Your task to perform on an android device: turn off improve location accuracy Image 0: 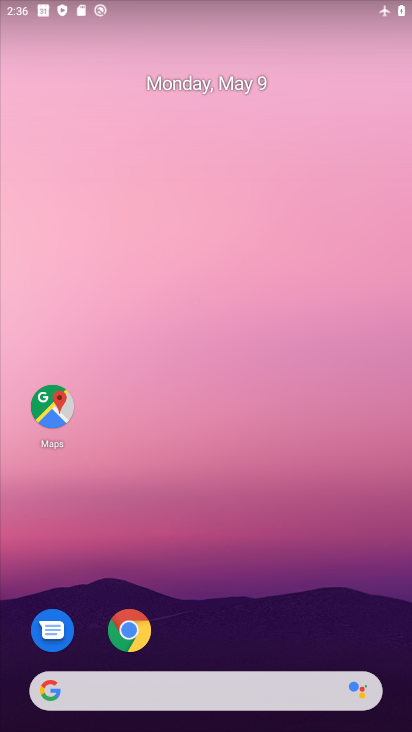
Step 0: drag from (346, 620) to (243, 199)
Your task to perform on an android device: turn off improve location accuracy Image 1: 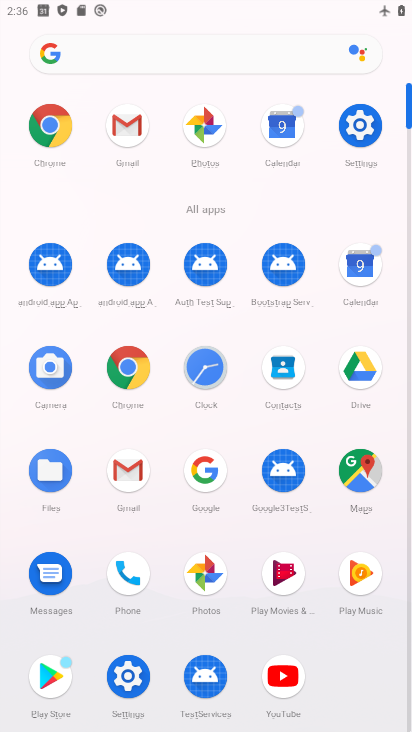
Step 1: click (361, 130)
Your task to perform on an android device: turn off improve location accuracy Image 2: 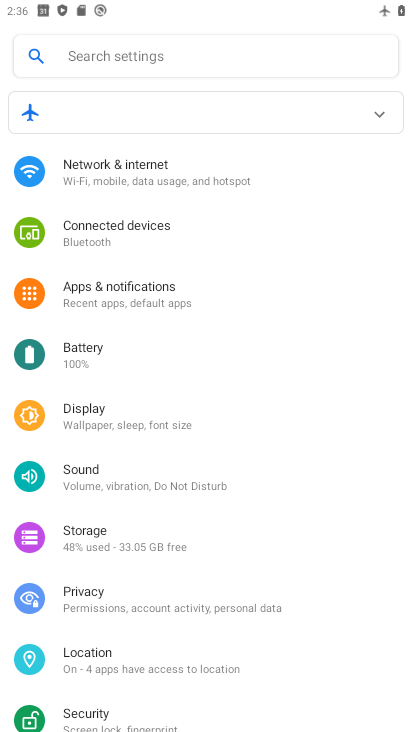
Step 2: click (225, 662)
Your task to perform on an android device: turn off improve location accuracy Image 3: 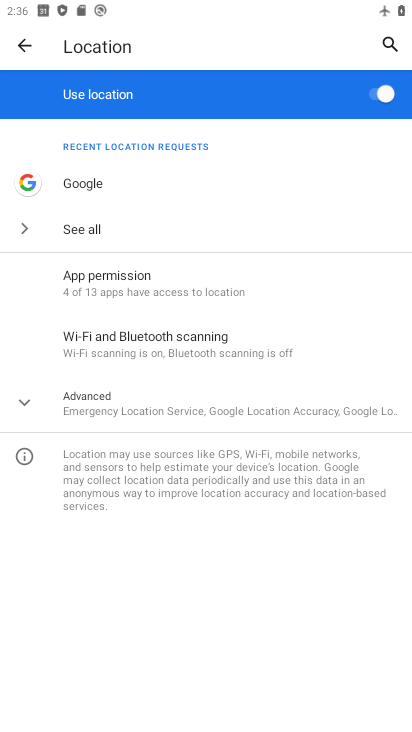
Step 3: click (225, 411)
Your task to perform on an android device: turn off improve location accuracy Image 4: 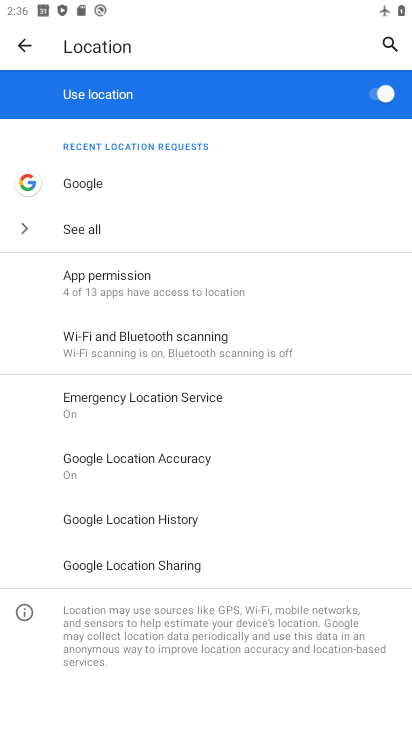
Step 4: click (220, 469)
Your task to perform on an android device: turn off improve location accuracy Image 5: 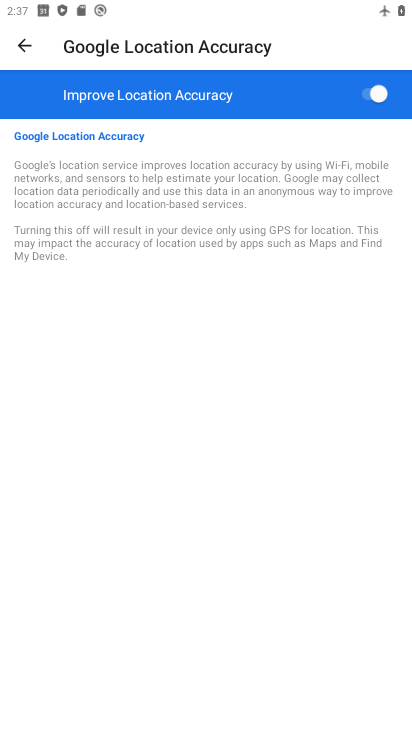
Step 5: click (370, 103)
Your task to perform on an android device: turn off improve location accuracy Image 6: 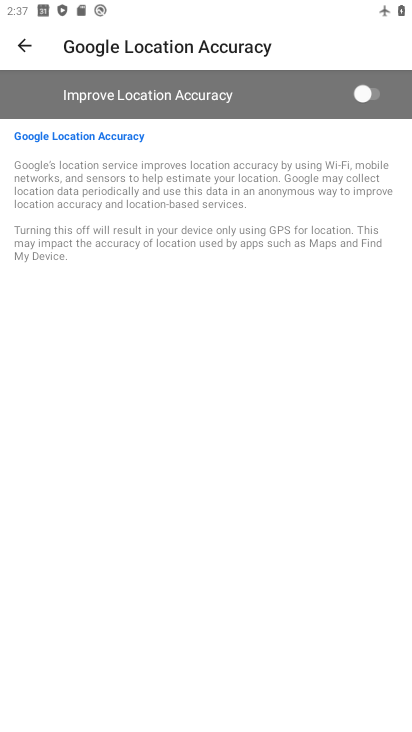
Step 6: task complete